Your task to perform on an android device: check google app version Image 0: 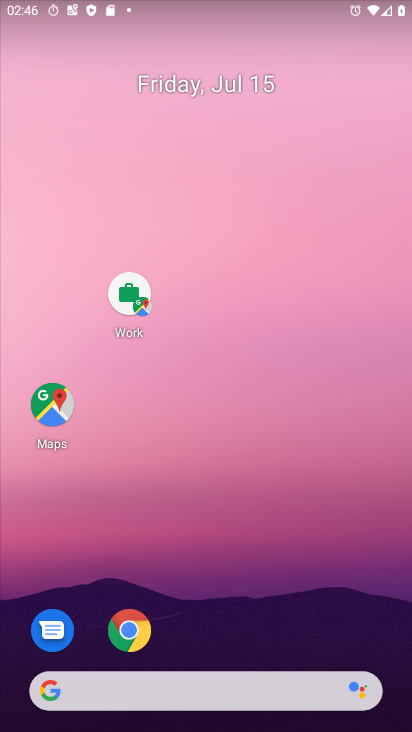
Step 0: drag from (263, 629) to (276, 214)
Your task to perform on an android device: check google app version Image 1: 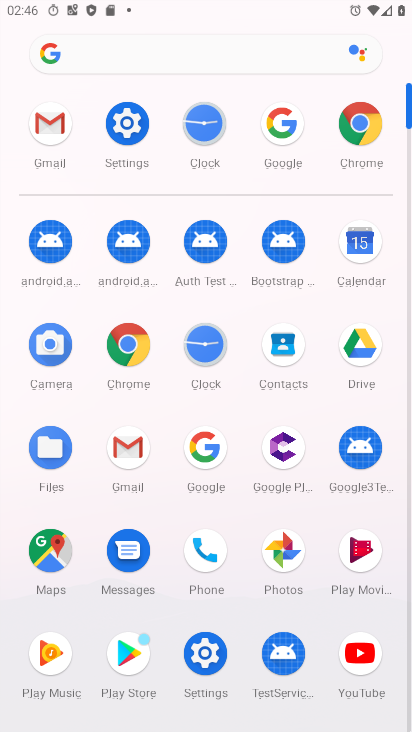
Step 1: click (290, 147)
Your task to perform on an android device: check google app version Image 2: 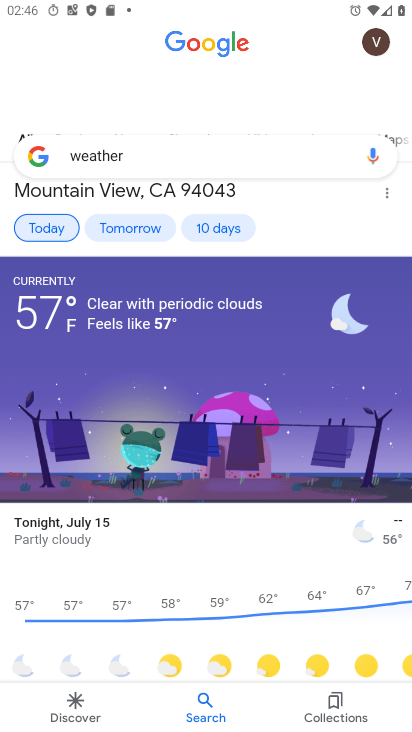
Step 2: click (383, 52)
Your task to perform on an android device: check google app version Image 3: 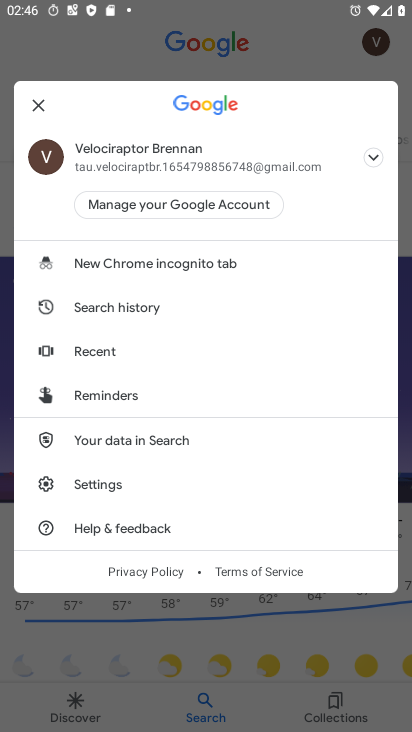
Step 3: click (127, 486)
Your task to perform on an android device: check google app version Image 4: 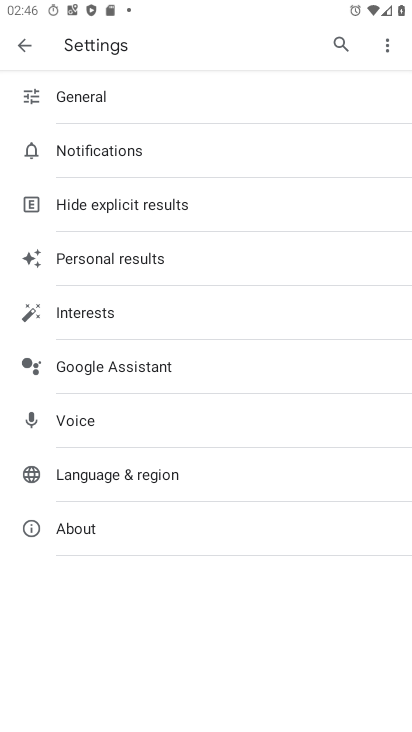
Step 4: drag from (91, 533) to (135, 533)
Your task to perform on an android device: check google app version Image 5: 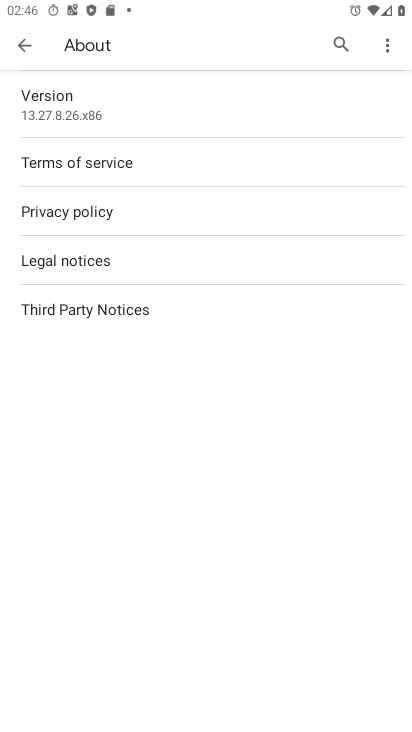
Step 5: click (92, 120)
Your task to perform on an android device: check google app version Image 6: 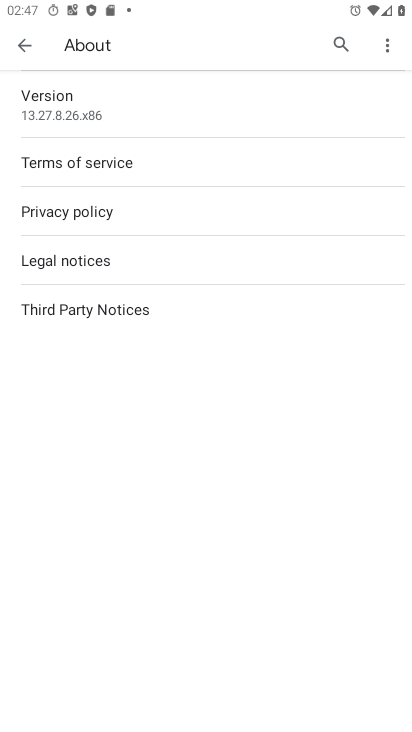
Step 6: click (154, 96)
Your task to perform on an android device: check google app version Image 7: 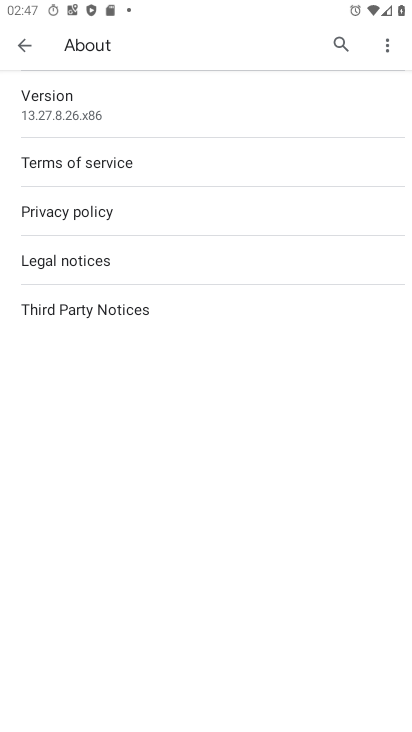
Step 7: task complete